Your task to perform on an android device: Turn on the flashlight Image 0: 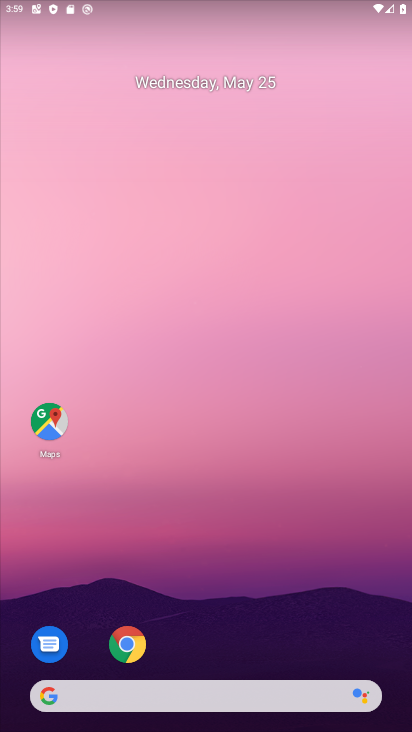
Step 0: drag from (221, 5) to (259, 622)
Your task to perform on an android device: Turn on the flashlight Image 1: 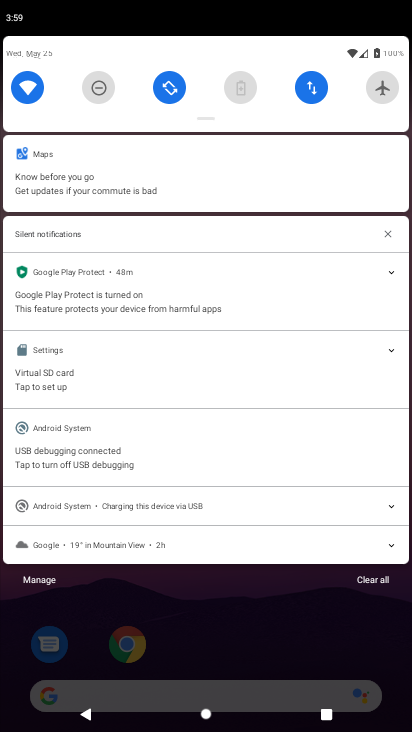
Step 1: task complete